Your task to perform on an android device: turn on notifications settings in the gmail app Image 0: 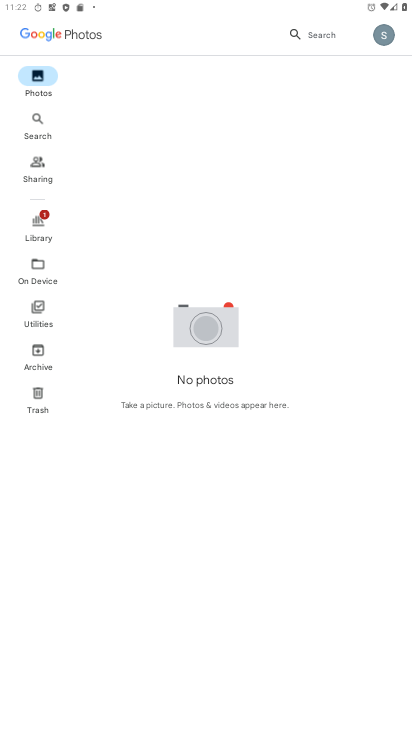
Step 0: press home button
Your task to perform on an android device: turn on notifications settings in the gmail app Image 1: 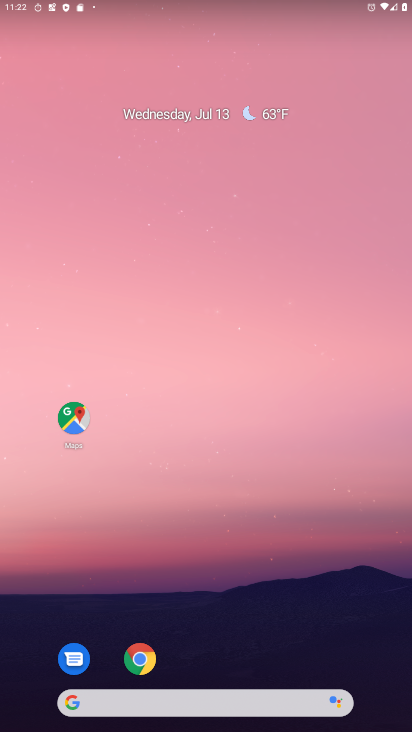
Step 1: drag from (256, 669) to (159, 22)
Your task to perform on an android device: turn on notifications settings in the gmail app Image 2: 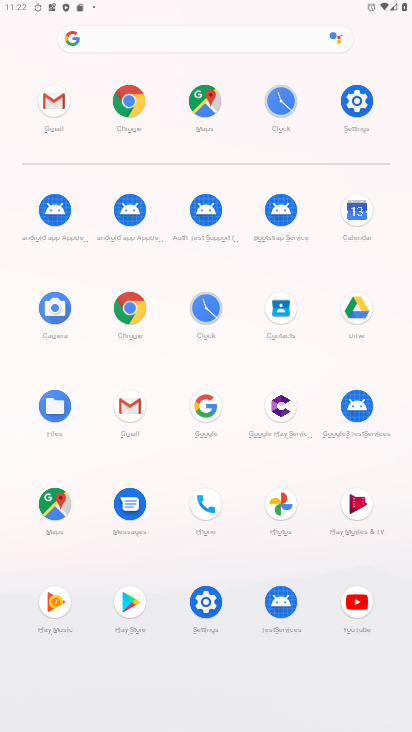
Step 2: click (59, 117)
Your task to perform on an android device: turn on notifications settings in the gmail app Image 3: 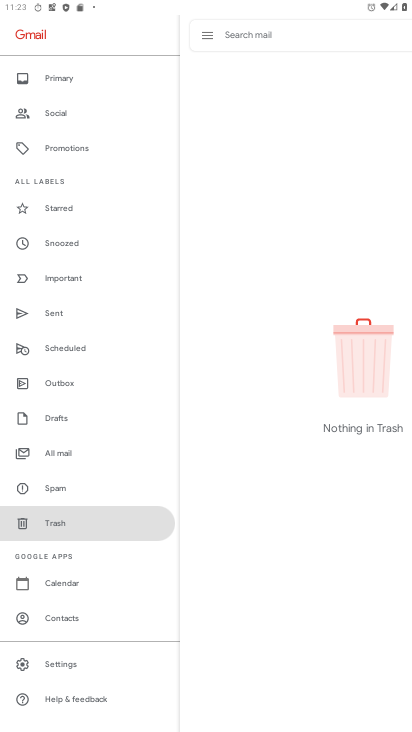
Step 3: click (67, 670)
Your task to perform on an android device: turn on notifications settings in the gmail app Image 4: 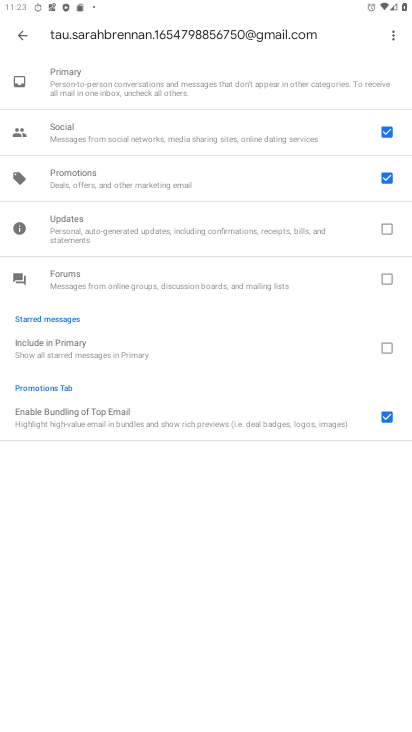
Step 4: click (23, 35)
Your task to perform on an android device: turn on notifications settings in the gmail app Image 5: 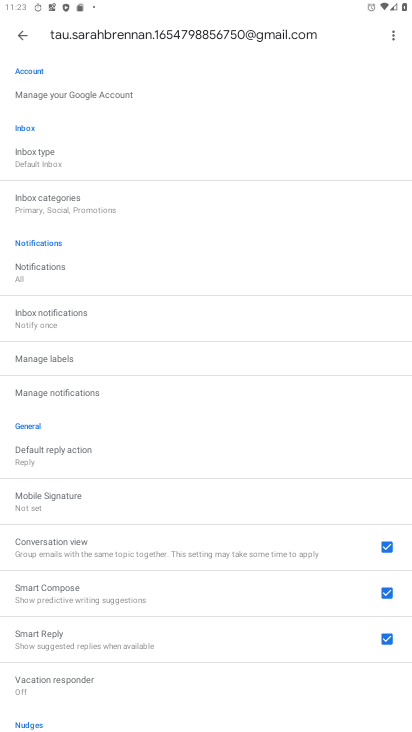
Step 5: click (59, 394)
Your task to perform on an android device: turn on notifications settings in the gmail app Image 6: 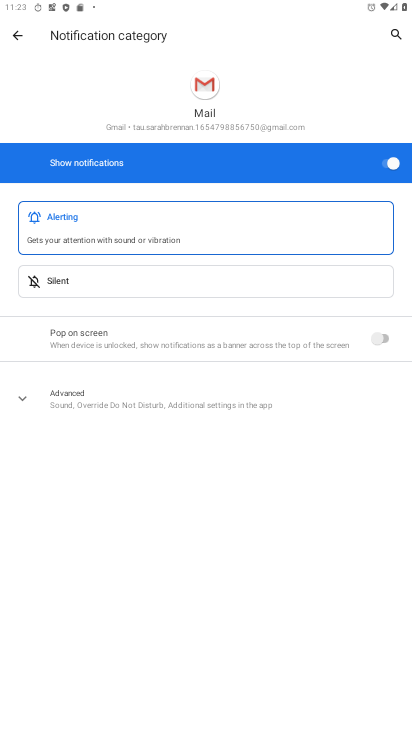
Step 6: task complete